Your task to perform on an android device: star an email in the gmail app Image 0: 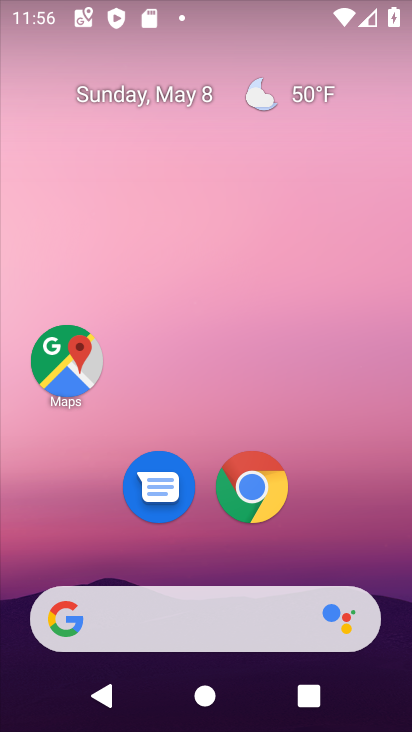
Step 0: drag from (313, 548) to (333, 113)
Your task to perform on an android device: star an email in the gmail app Image 1: 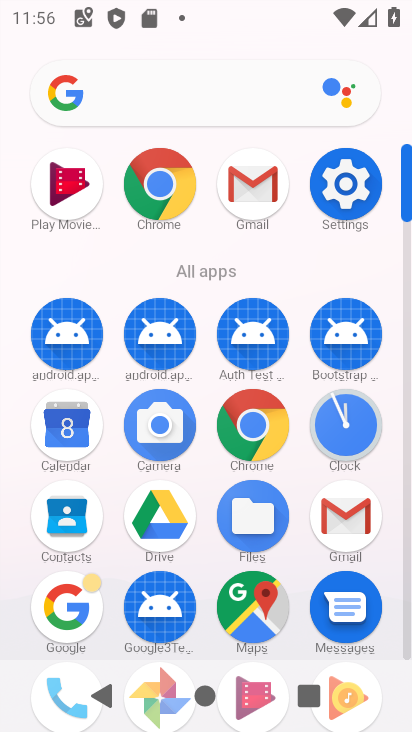
Step 1: click (269, 180)
Your task to perform on an android device: star an email in the gmail app Image 2: 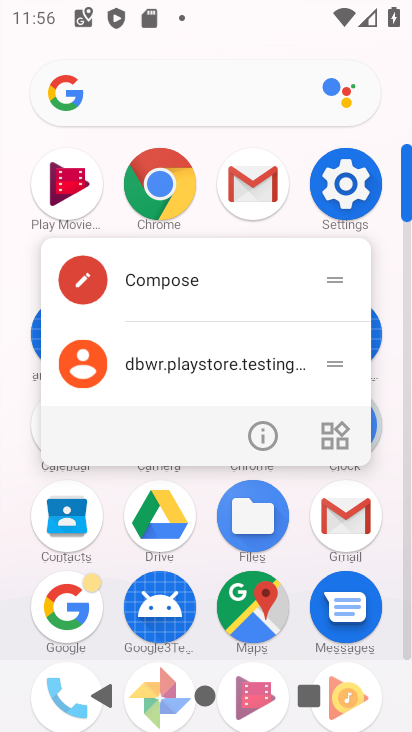
Step 2: click (257, 181)
Your task to perform on an android device: star an email in the gmail app Image 3: 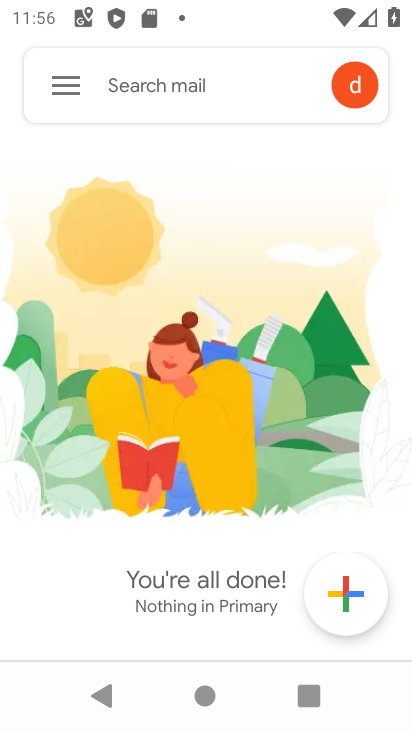
Step 3: click (75, 93)
Your task to perform on an android device: star an email in the gmail app Image 4: 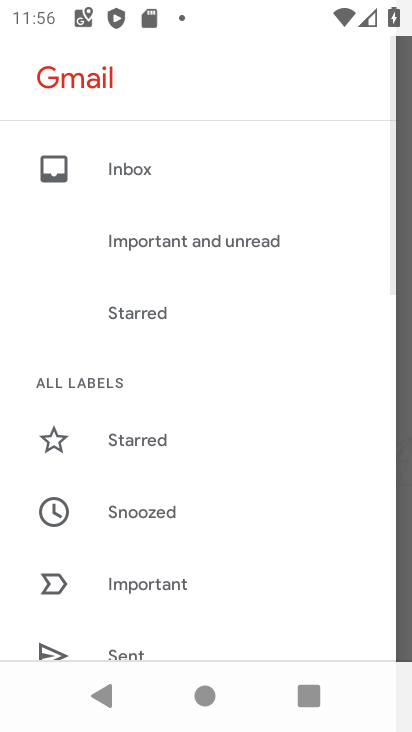
Step 4: drag from (164, 592) to (199, 188)
Your task to perform on an android device: star an email in the gmail app Image 5: 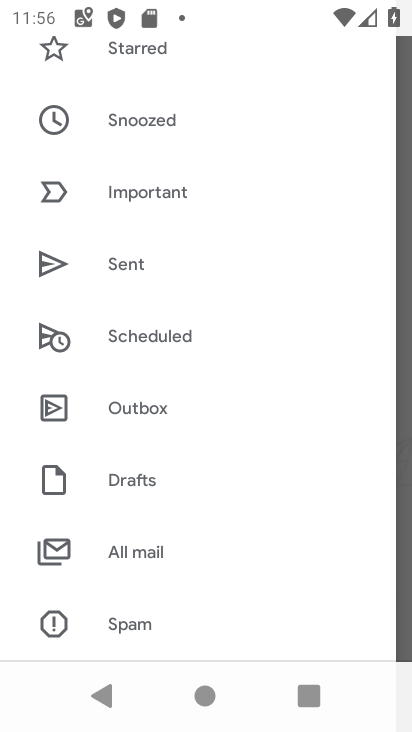
Step 5: click (167, 548)
Your task to perform on an android device: star an email in the gmail app Image 6: 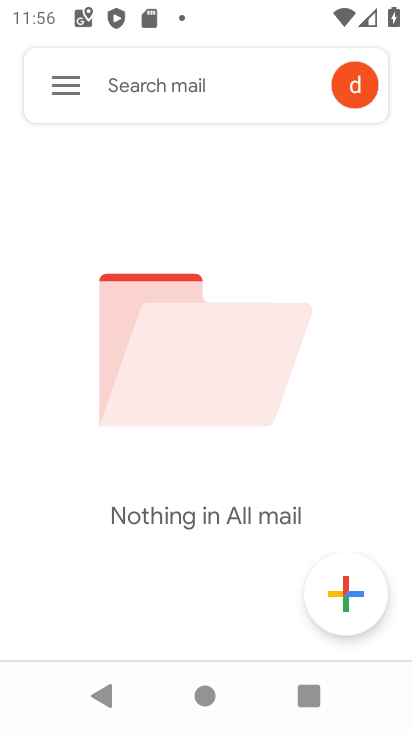
Step 6: task complete